Your task to perform on an android device: turn off location Image 0: 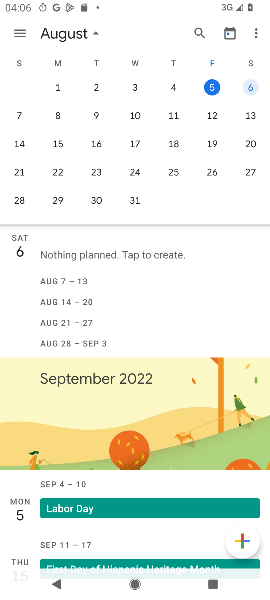
Step 0: press home button
Your task to perform on an android device: turn off location Image 1: 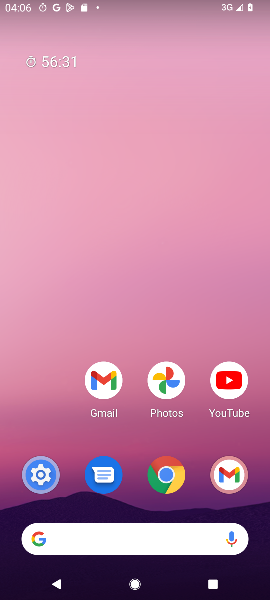
Step 1: drag from (59, 410) to (50, 203)
Your task to perform on an android device: turn off location Image 2: 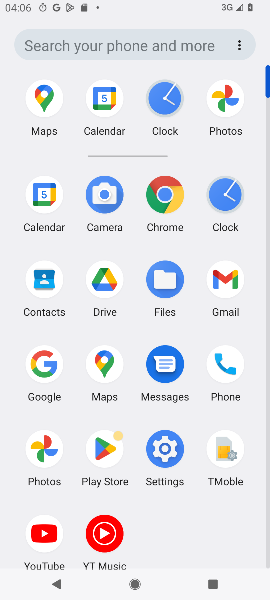
Step 2: click (170, 453)
Your task to perform on an android device: turn off location Image 3: 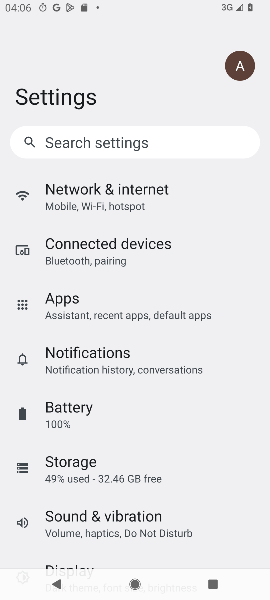
Step 3: drag from (224, 498) to (223, 407)
Your task to perform on an android device: turn off location Image 4: 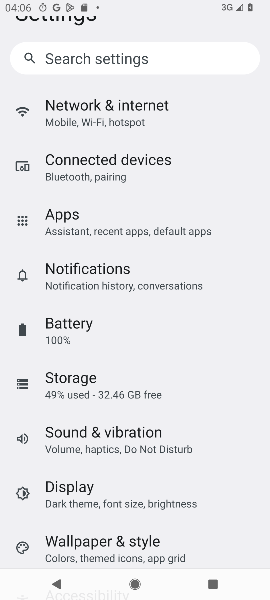
Step 4: drag from (224, 531) to (228, 437)
Your task to perform on an android device: turn off location Image 5: 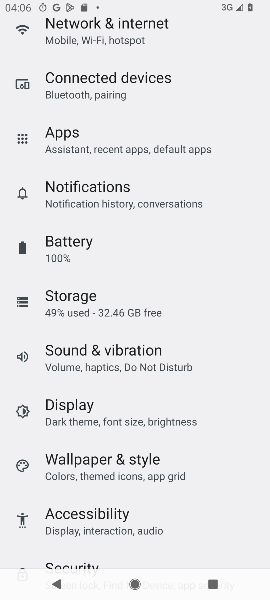
Step 5: drag from (228, 537) to (228, 444)
Your task to perform on an android device: turn off location Image 6: 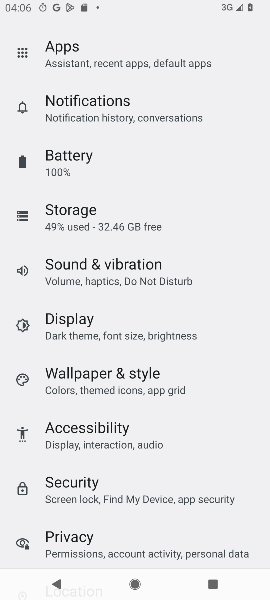
Step 6: drag from (216, 446) to (219, 339)
Your task to perform on an android device: turn off location Image 7: 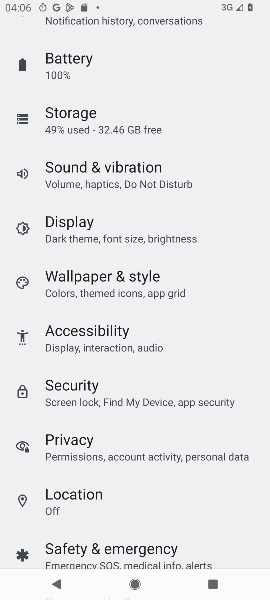
Step 7: drag from (219, 486) to (222, 383)
Your task to perform on an android device: turn off location Image 8: 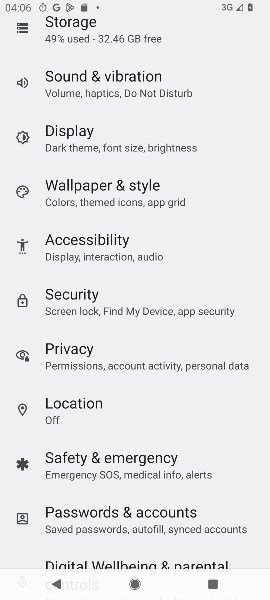
Step 8: drag from (233, 537) to (234, 402)
Your task to perform on an android device: turn off location Image 9: 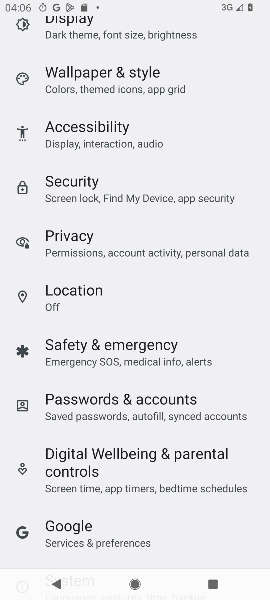
Step 9: drag from (227, 524) to (233, 402)
Your task to perform on an android device: turn off location Image 10: 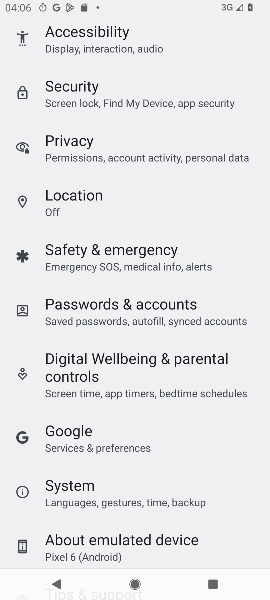
Step 10: drag from (249, 271) to (247, 355)
Your task to perform on an android device: turn off location Image 11: 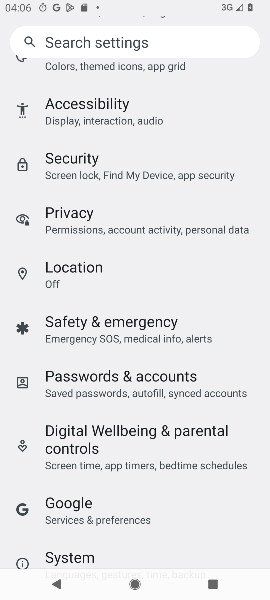
Step 11: drag from (244, 268) to (245, 357)
Your task to perform on an android device: turn off location Image 12: 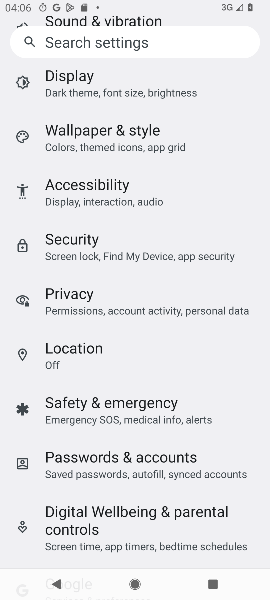
Step 12: drag from (243, 202) to (250, 297)
Your task to perform on an android device: turn off location Image 13: 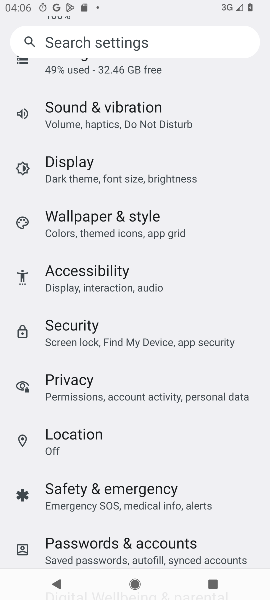
Step 13: drag from (239, 211) to (237, 297)
Your task to perform on an android device: turn off location Image 14: 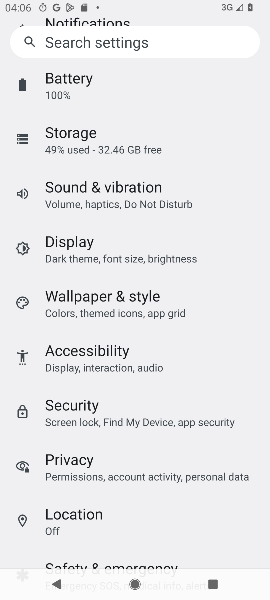
Step 14: drag from (228, 161) to (230, 270)
Your task to perform on an android device: turn off location Image 15: 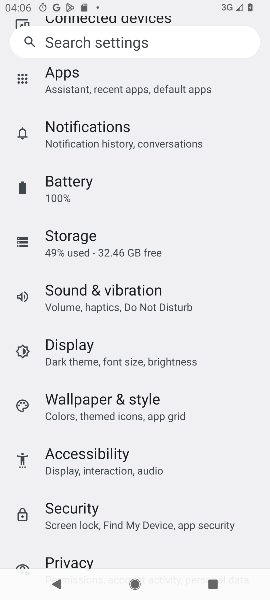
Step 15: drag from (240, 139) to (237, 242)
Your task to perform on an android device: turn off location Image 16: 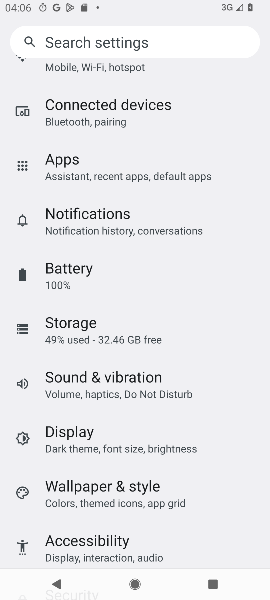
Step 16: drag from (239, 129) to (237, 223)
Your task to perform on an android device: turn off location Image 17: 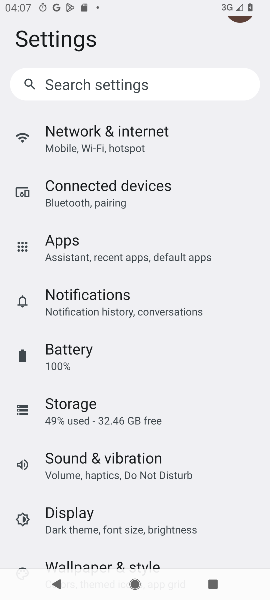
Step 17: drag from (227, 319) to (230, 252)
Your task to perform on an android device: turn off location Image 18: 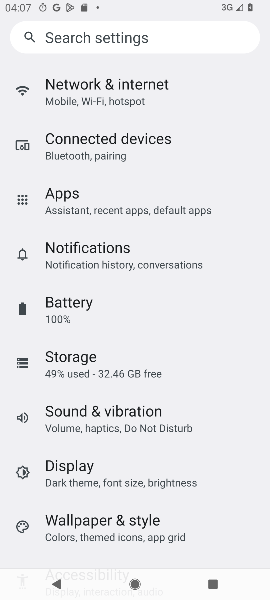
Step 18: drag from (222, 350) to (231, 261)
Your task to perform on an android device: turn off location Image 19: 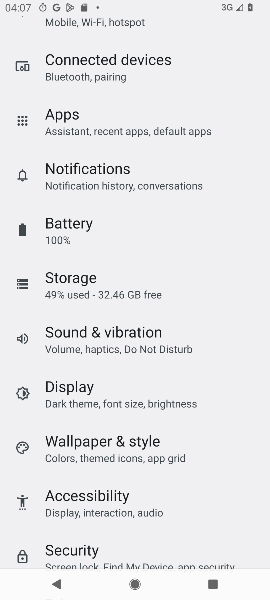
Step 19: drag from (229, 388) to (234, 296)
Your task to perform on an android device: turn off location Image 20: 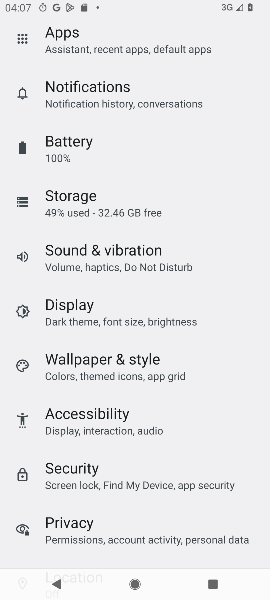
Step 20: drag from (212, 428) to (219, 329)
Your task to perform on an android device: turn off location Image 21: 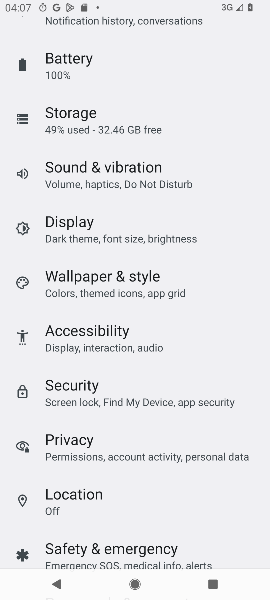
Step 21: drag from (204, 479) to (211, 391)
Your task to perform on an android device: turn off location Image 22: 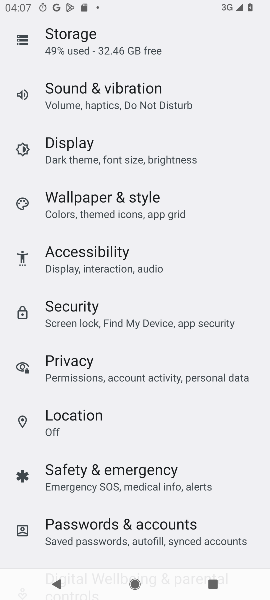
Step 22: click (188, 430)
Your task to perform on an android device: turn off location Image 23: 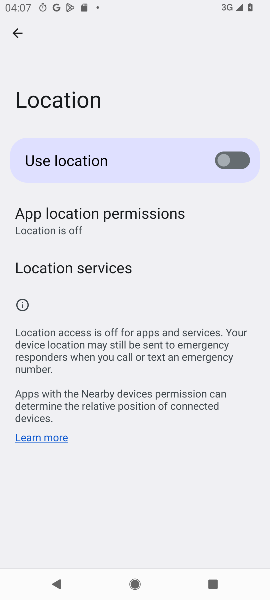
Step 23: task complete